Your task to perform on an android device: turn on notifications settings in the gmail app Image 0: 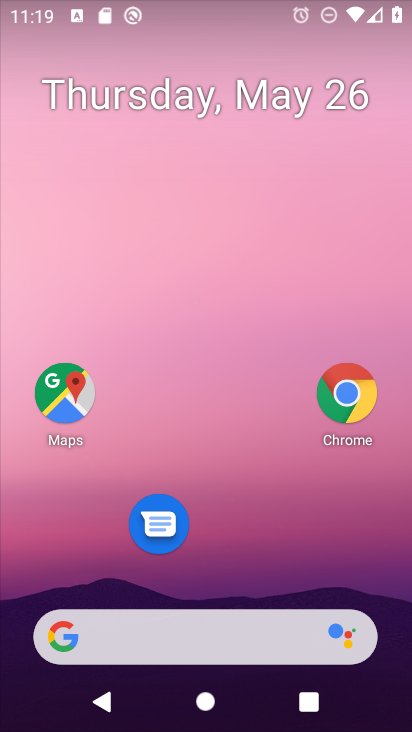
Step 0: drag from (250, 507) to (276, 1)
Your task to perform on an android device: turn on notifications settings in the gmail app Image 1: 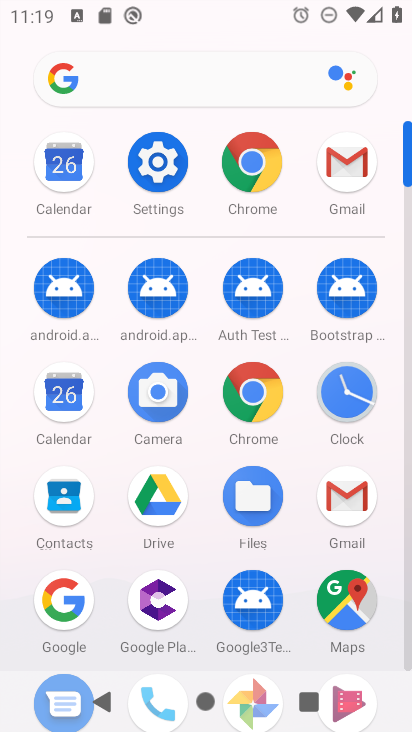
Step 1: click (344, 152)
Your task to perform on an android device: turn on notifications settings in the gmail app Image 2: 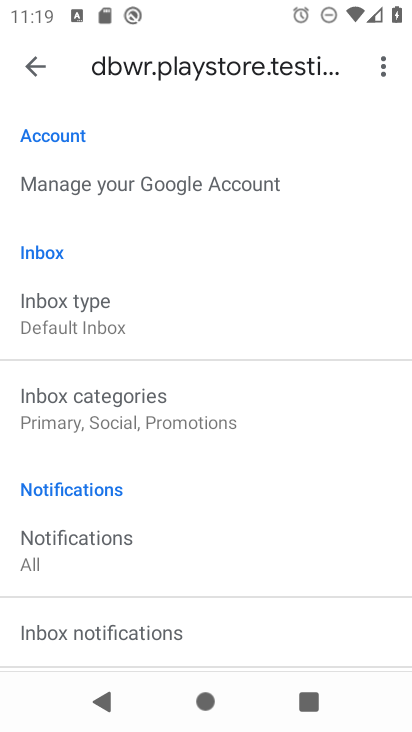
Step 2: drag from (221, 566) to (219, 114)
Your task to perform on an android device: turn on notifications settings in the gmail app Image 3: 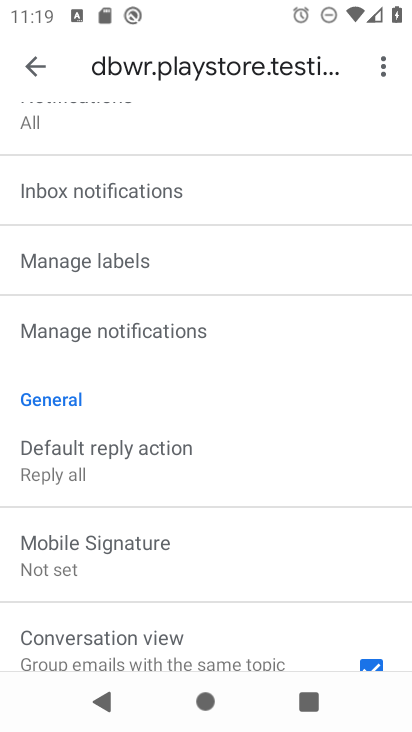
Step 3: click (226, 321)
Your task to perform on an android device: turn on notifications settings in the gmail app Image 4: 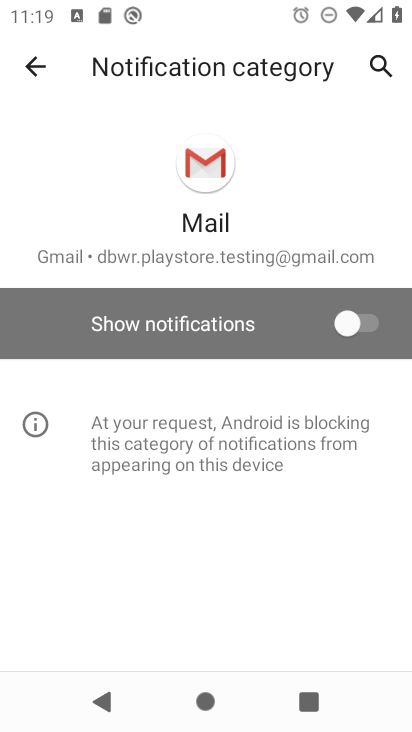
Step 4: click (362, 331)
Your task to perform on an android device: turn on notifications settings in the gmail app Image 5: 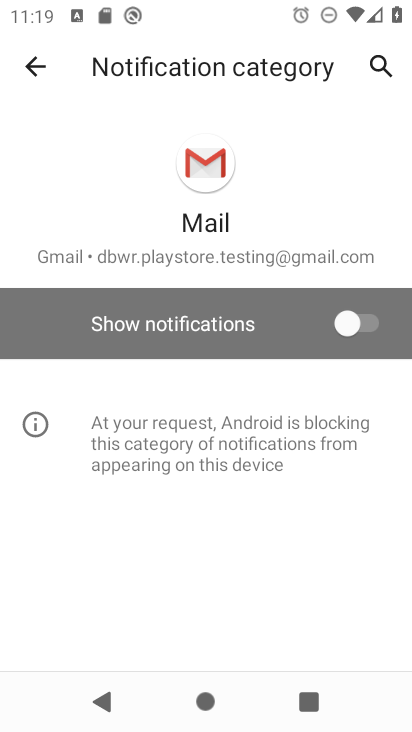
Step 5: click (363, 318)
Your task to perform on an android device: turn on notifications settings in the gmail app Image 6: 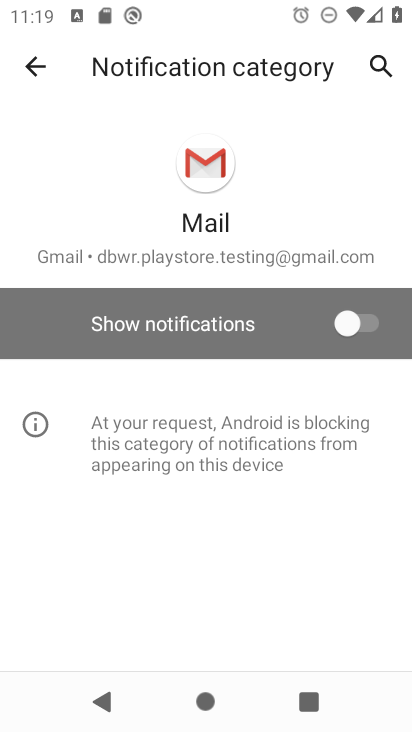
Step 6: click (356, 320)
Your task to perform on an android device: turn on notifications settings in the gmail app Image 7: 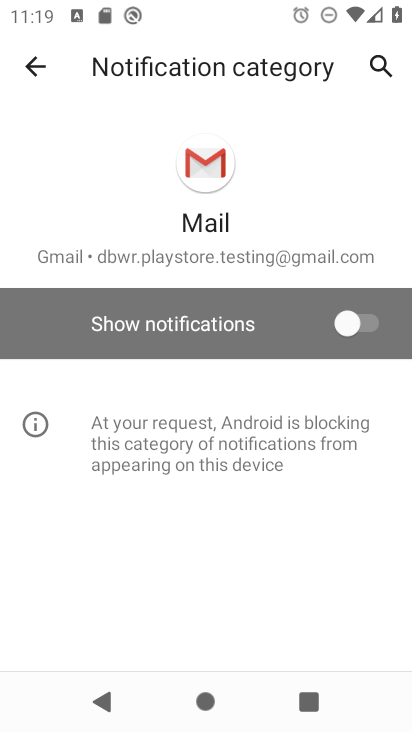
Step 7: click (41, 63)
Your task to perform on an android device: turn on notifications settings in the gmail app Image 8: 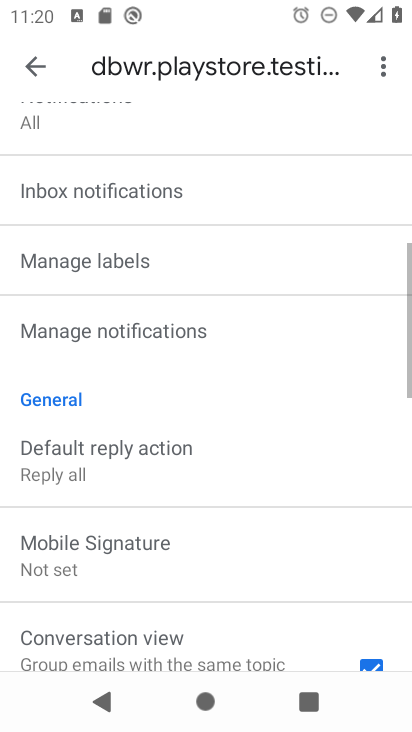
Step 8: click (41, 65)
Your task to perform on an android device: turn on notifications settings in the gmail app Image 9: 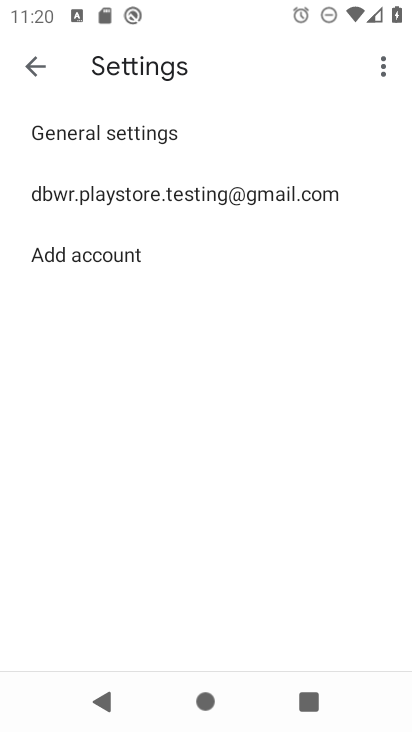
Step 9: click (98, 123)
Your task to perform on an android device: turn on notifications settings in the gmail app Image 10: 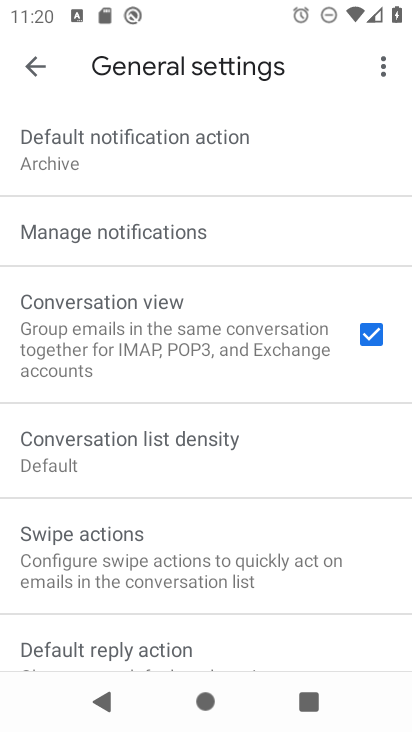
Step 10: click (231, 234)
Your task to perform on an android device: turn on notifications settings in the gmail app Image 11: 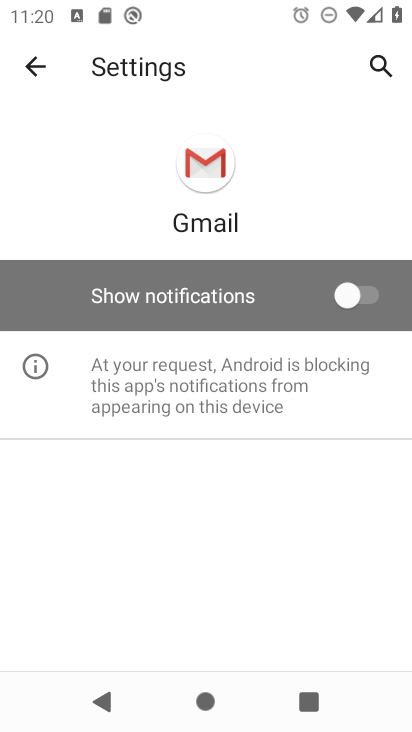
Step 11: click (353, 289)
Your task to perform on an android device: turn on notifications settings in the gmail app Image 12: 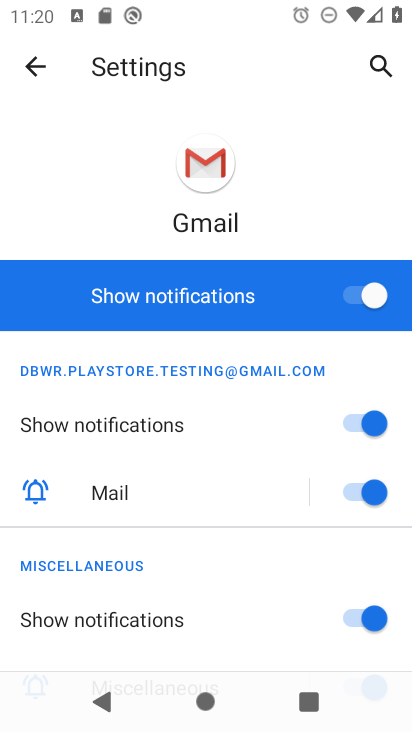
Step 12: task complete